Your task to perform on an android device: install app "Microsoft Authenticator" Image 0: 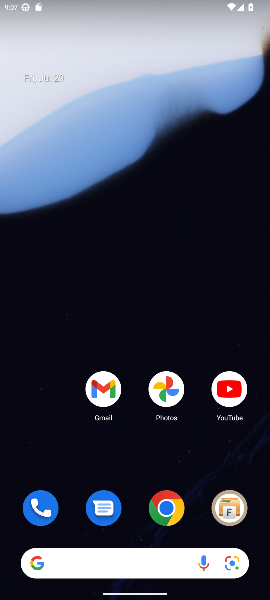
Step 0: drag from (149, 547) to (175, 45)
Your task to perform on an android device: install app "Microsoft Authenticator" Image 1: 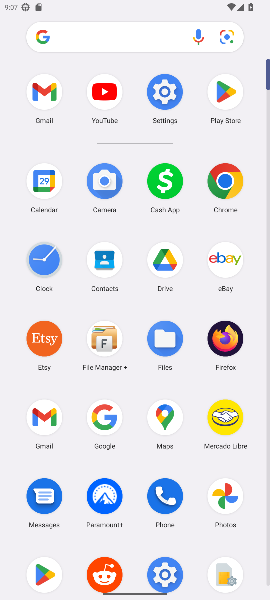
Step 1: click (221, 92)
Your task to perform on an android device: install app "Microsoft Authenticator" Image 2: 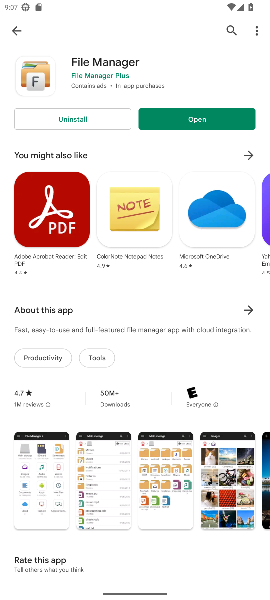
Step 2: click (228, 33)
Your task to perform on an android device: install app "Microsoft Authenticator" Image 3: 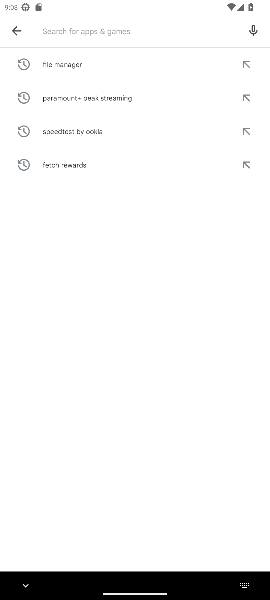
Step 3: type "microsoft authenticator"
Your task to perform on an android device: install app "Microsoft Authenticator" Image 4: 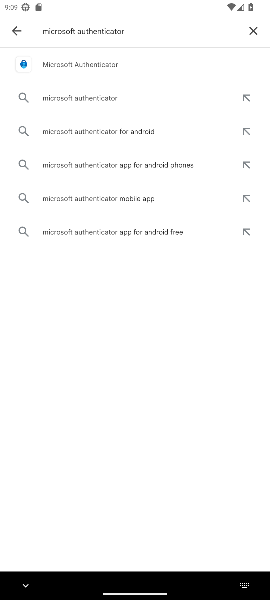
Step 4: click (88, 65)
Your task to perform on an android device: install app "Microsoft Authenticator" Image 5: 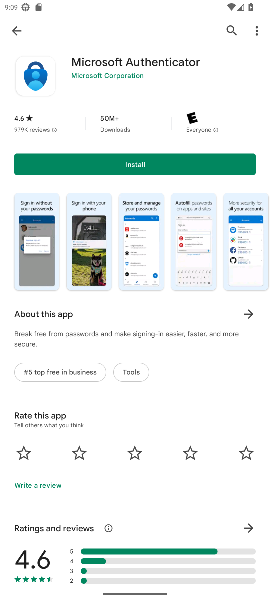
Step 5: click (135, 163)
Your task to perform on an android device: install app "Microsoft Authenticator" Image 6: 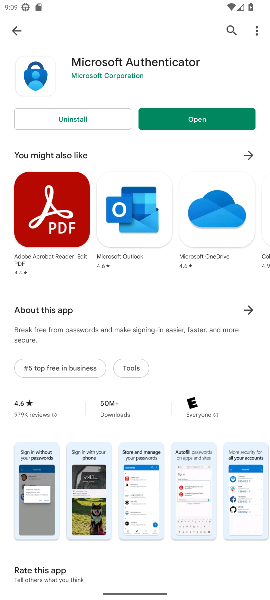
Step 6: task complete